Your task to perform on an android device: open app "VLC for Android" Image 0: 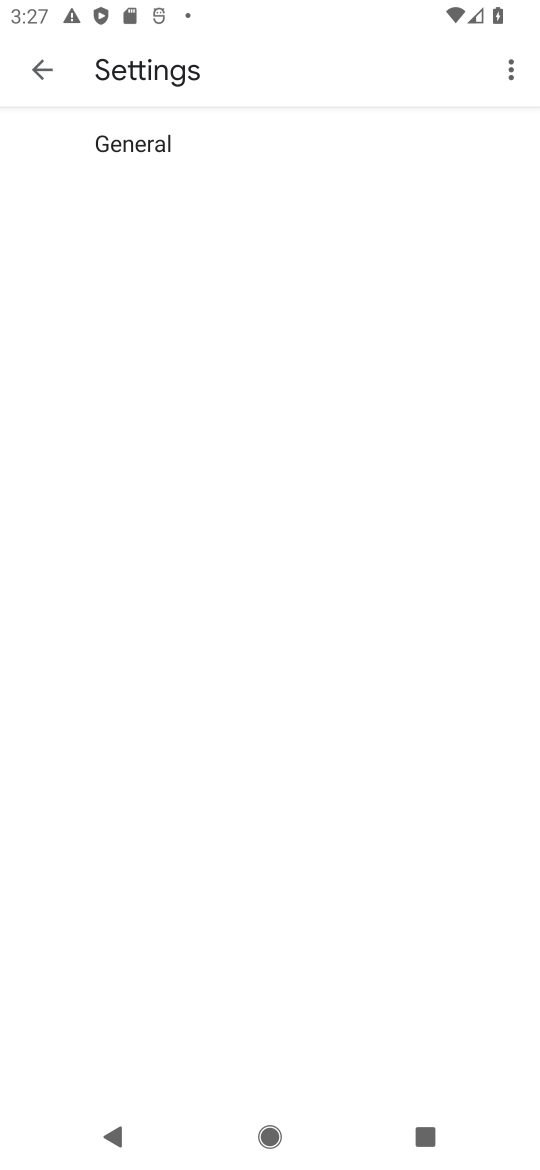
Step 0: press home button
Your task to perform on an android device: open app "VLC for Android" Image 1: 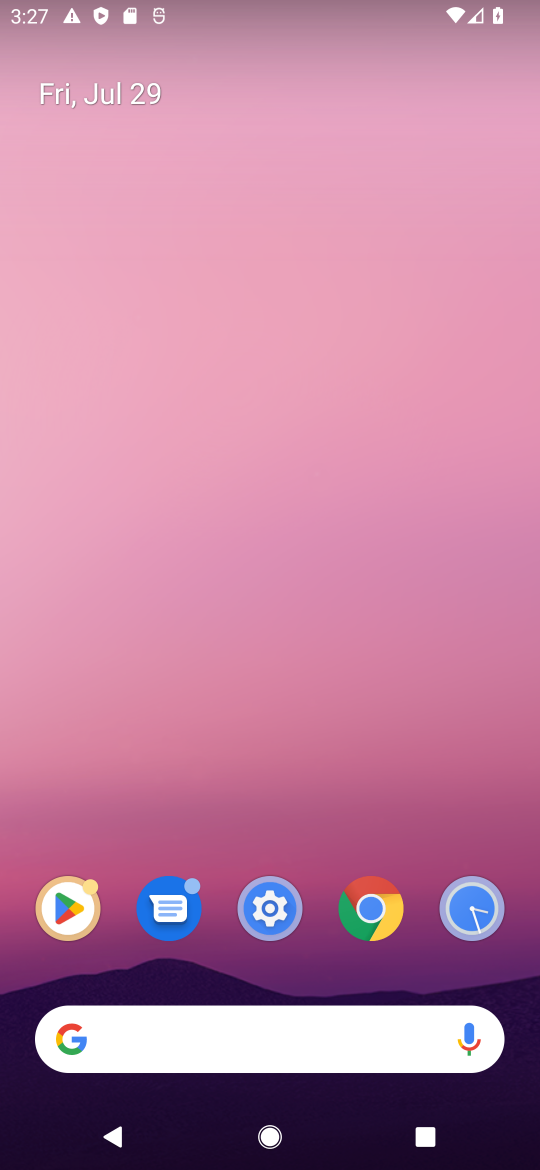
Step 1: click (74, 902)
Your task to perform on an android device: open app "VLC for Android" Image 2: 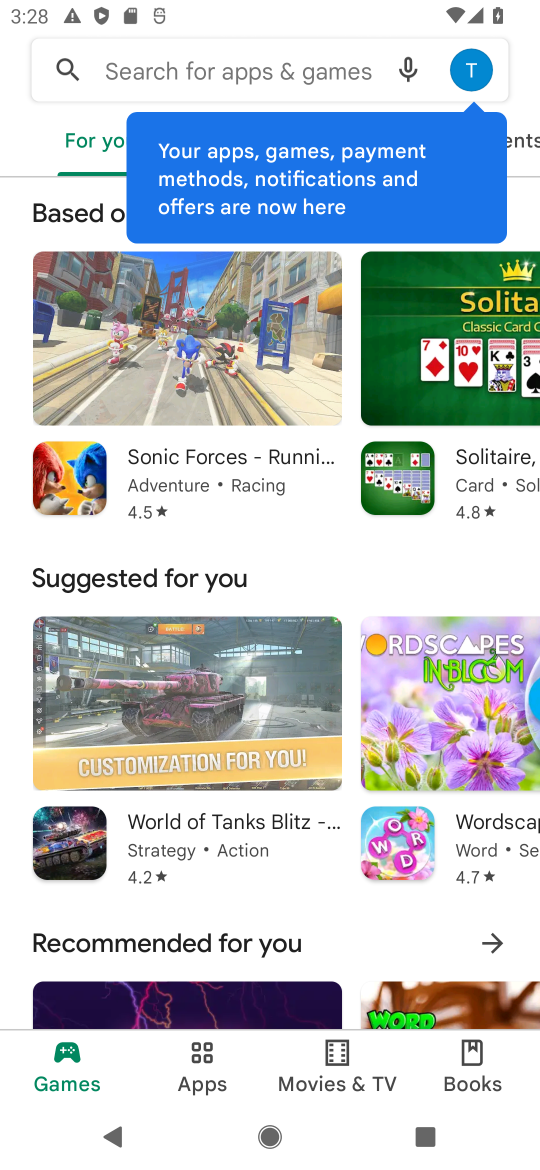
Step 2: click (216, 58)
Your task to perform on an android device: open app "VLC for Android" Image 3: 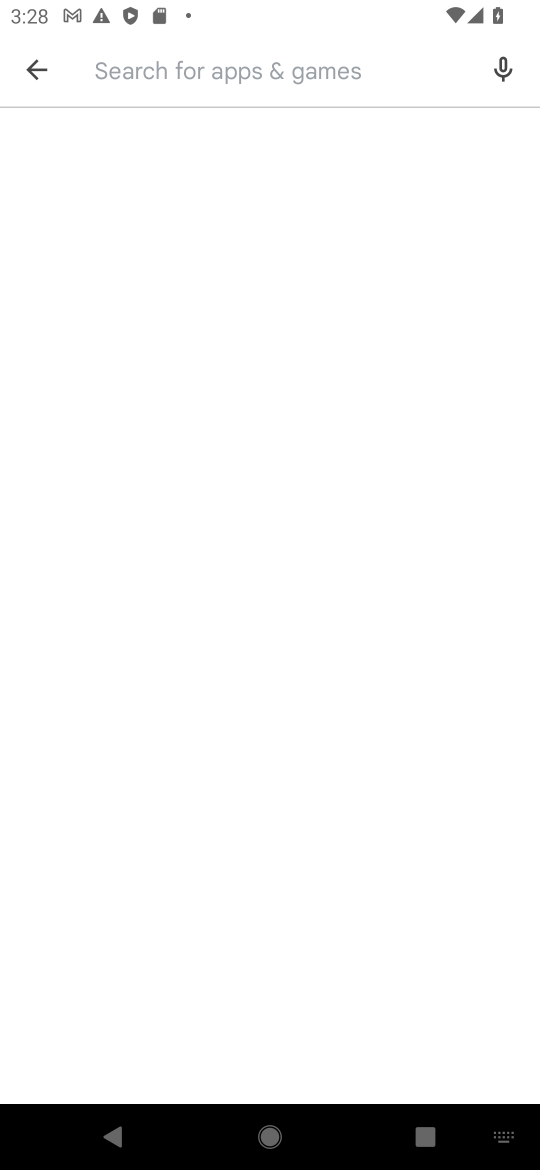
Step 3: type "vlc for android"
Your task to perform on an android device: open app "VLC for Android" Image 4: 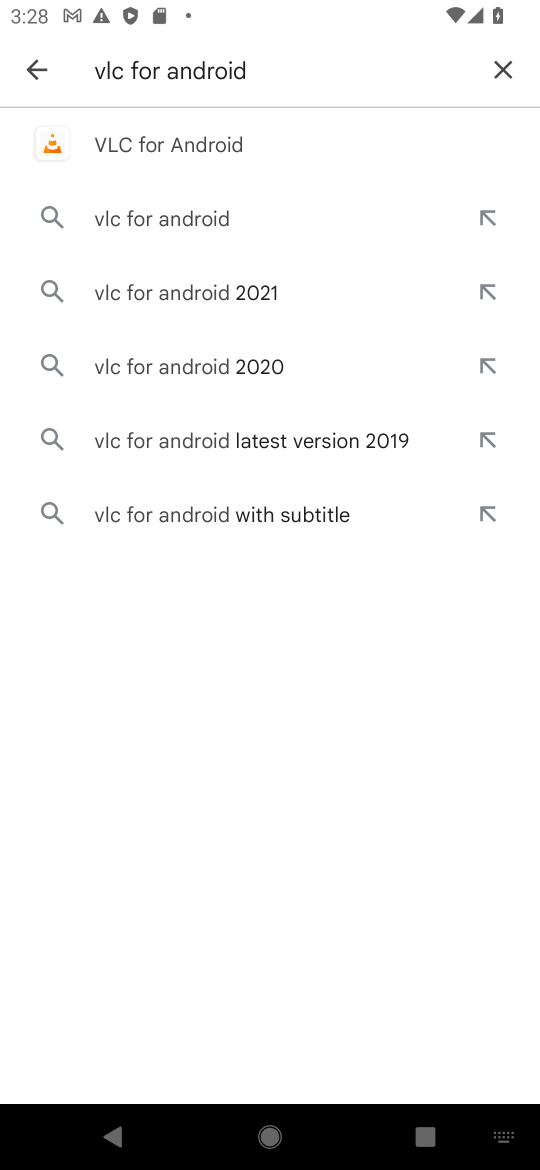
Step 4: click (272, 134)
Your task to perform on an android device: open app "VLC for Android" Image 5: 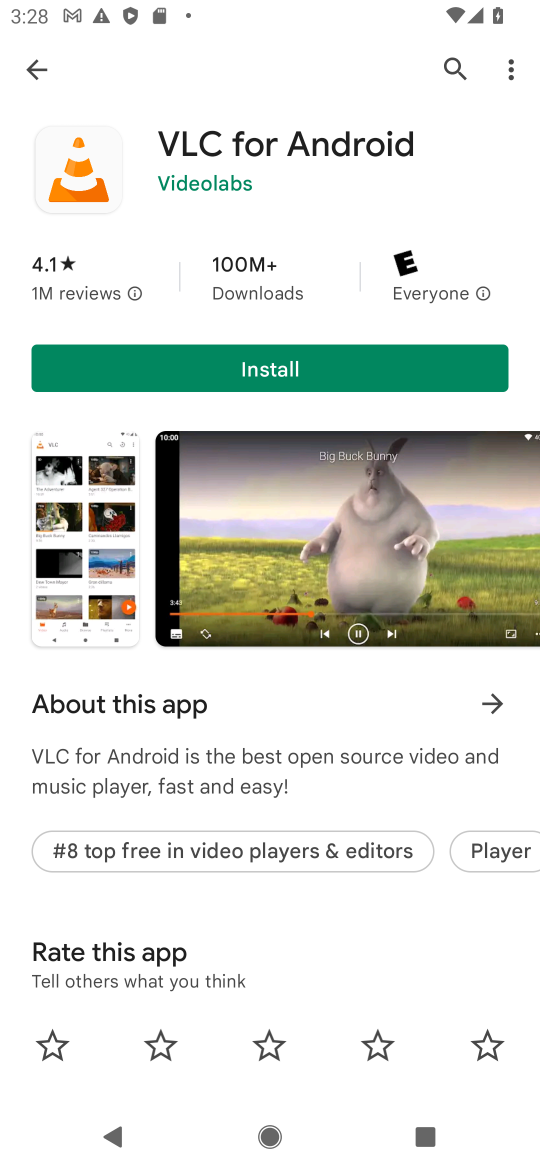
Step 5: click (272, 134)
Your task to perform on an android device: open app "VLC for Android" Image 6: 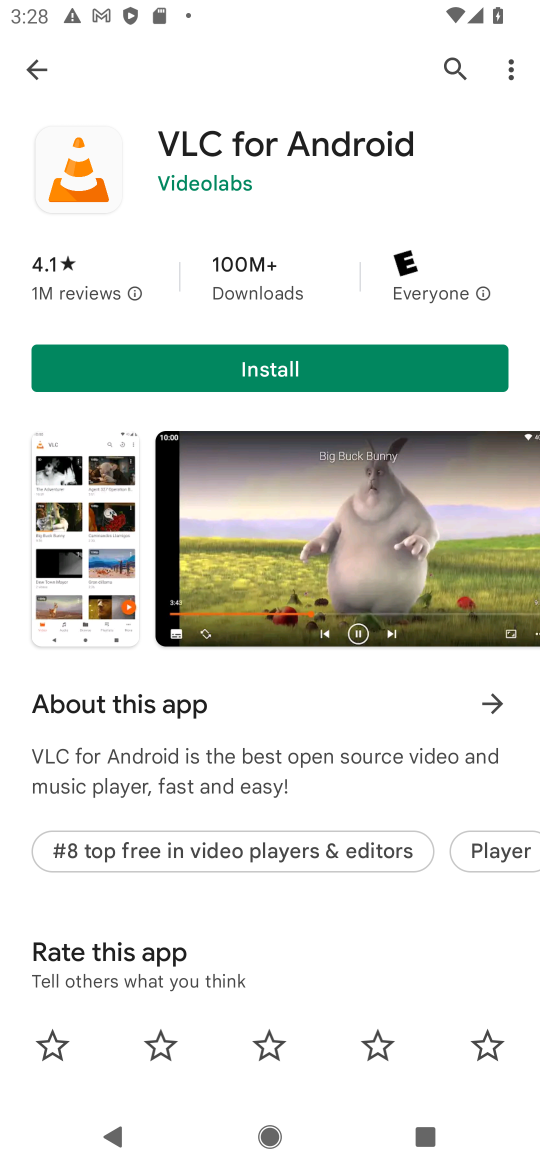
Step 6: task complete